Your task to perform on an android device: Go to location settings Image 0: 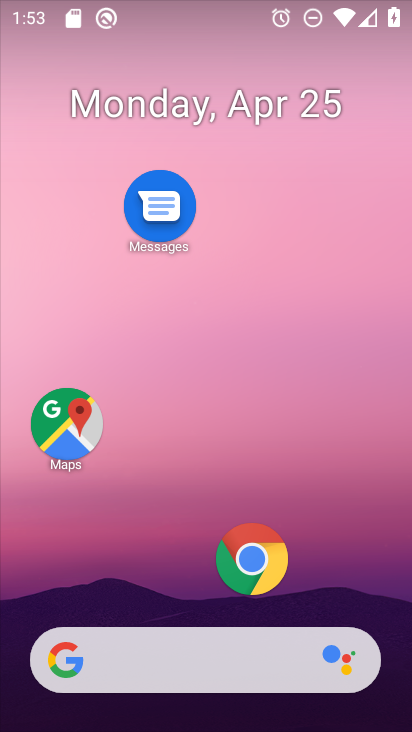
Step 0: drag from (186, 504) to (176, 80)
Your task to perform on an android device: Go to location settings Image 1: 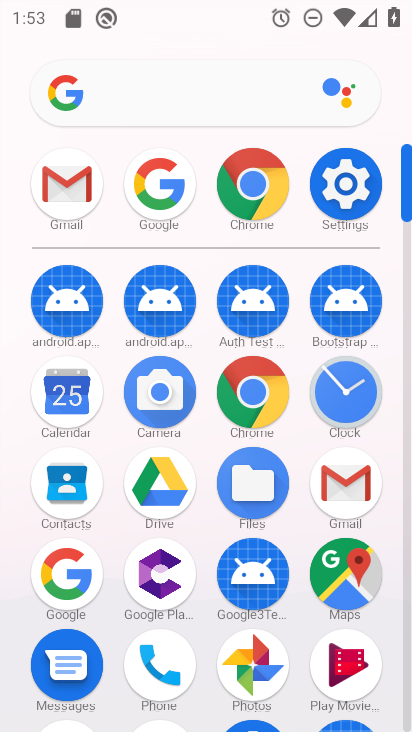
Step 1: click (344, 185)
Your task to perform on an android device: Go to location settings Image 2: 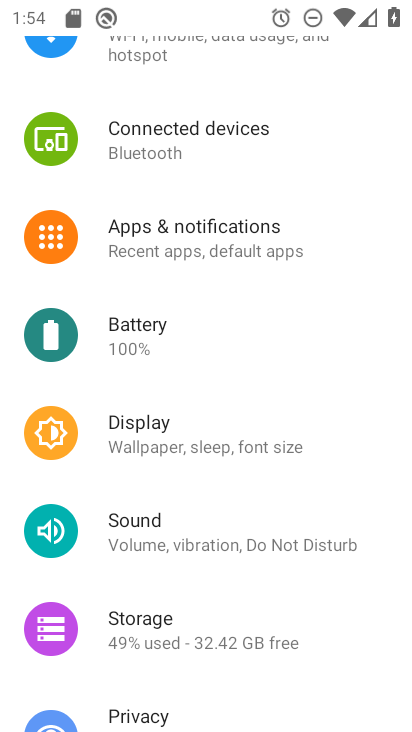
Step 2: drag from (236, 516) to (268, 124)
Your task to perform on an android device: Go to location settings Image 3: 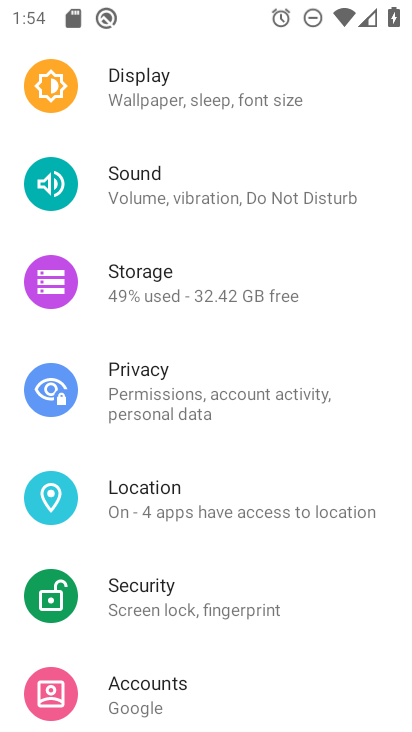
Step 3: click (145, 487)
Your task to perform on an android device: Go to location settings Image 4: 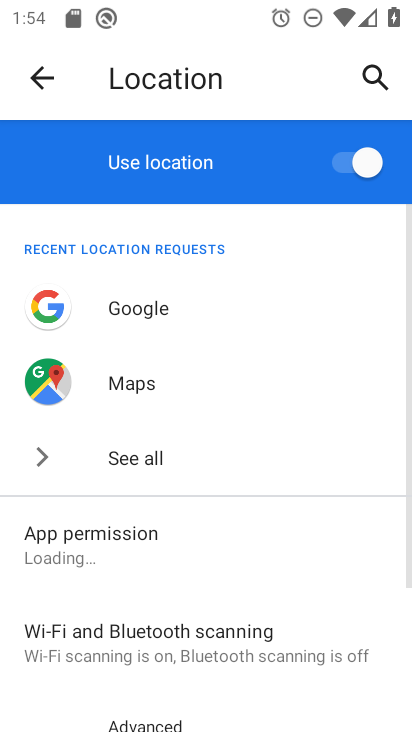
Step 4: task complete